Your task to perform on an android device: see tabs open on other devices in the chrome app Image 0: 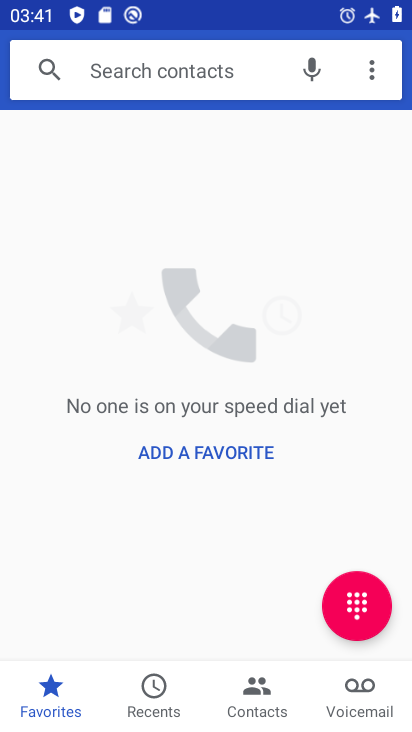
Step 0: press home button
Your task to perform on an android device: see tabs open on other devices in the chrome app Image 1: 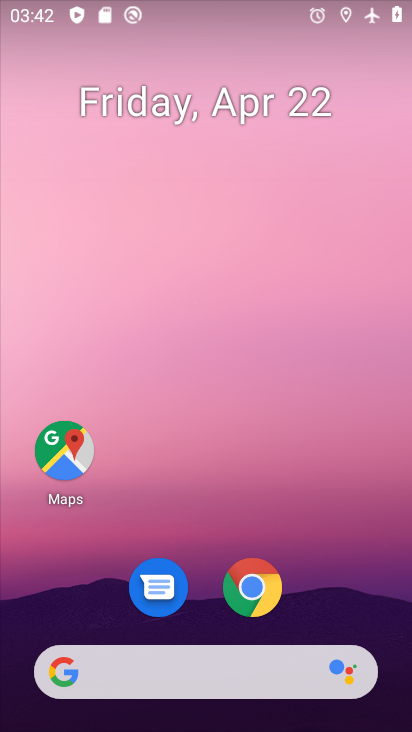
Step 1: drag from (318, 516) to (323, 7)
Your task to perform on an android device: see tabs open on other devices in the chrome app Image 2: 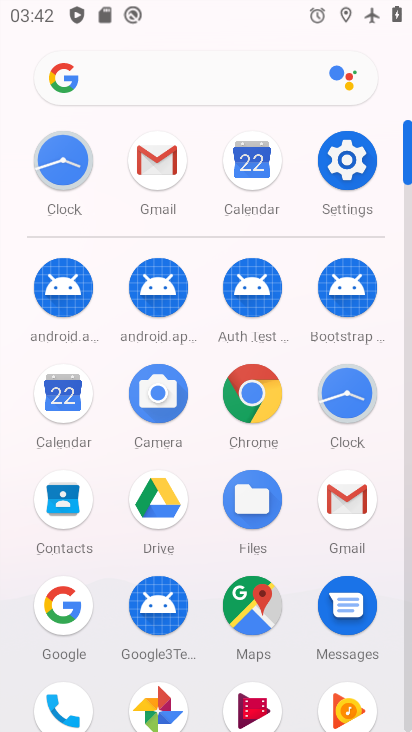
Step 2: click (253, 393)
Your task to perform on an android device: see tabs open on other devices in the chrome app Image 3: 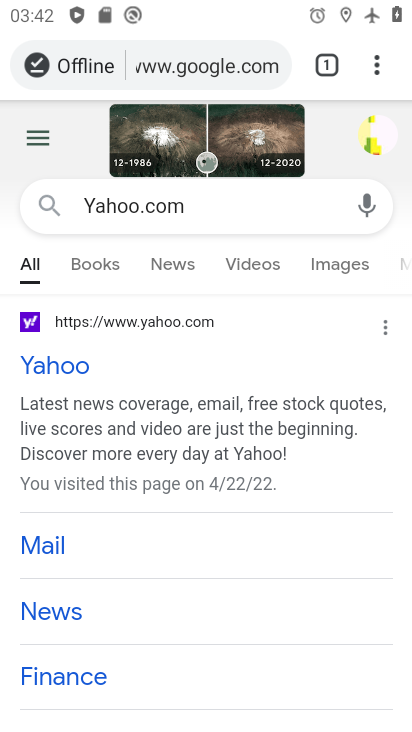
Step 3: click (376, 63)
Your task to perform on an android device: see tabs open on other devices in the chrome app Image 4: 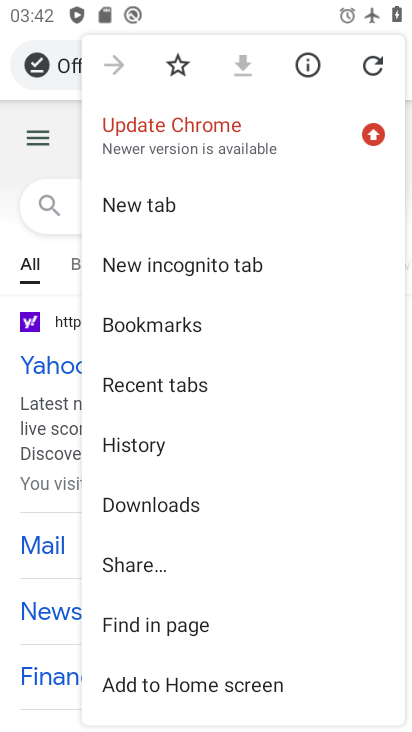
Step 4: click (157, 387)
Your task to perform on an android device: see tabs open on other devices in the chrome app Image 5: 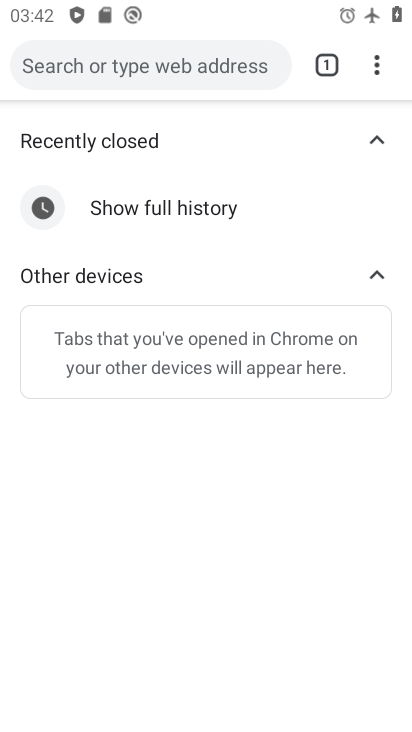
Step 5: click (382, 135)
Your task to perform on an android device: see tabs open on other devices in the chrome app Image 6: 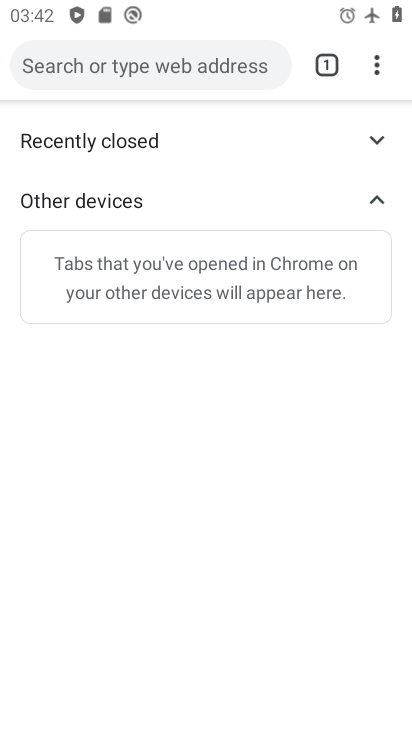
Step 6: task complete